Your task to perform on an android device: toggle translation in the chrome app Image 0: 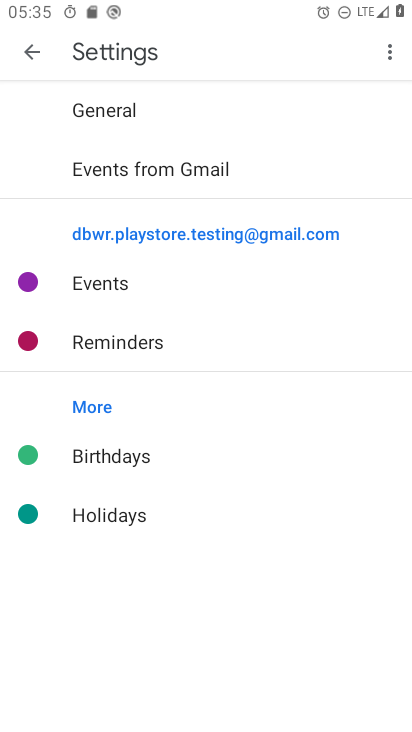
Step 0: press home button
Your task to perform on an android device: toggle translation in the chrome app Image 1: 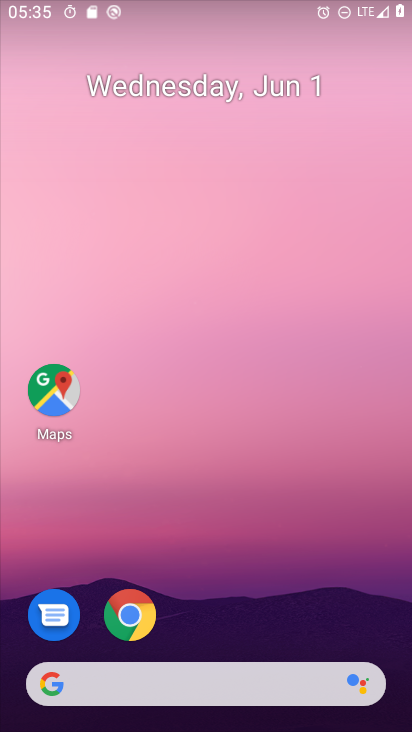
Step 1: drag from (293, 656) to (300, 16)
Your task to perform on an android device: toggle translation in the chrome app Image 2: 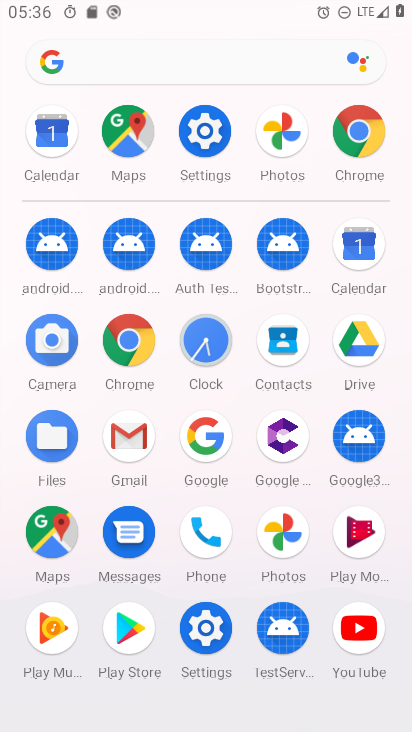
Step 2: click (142, 338)
Your task to perform on an android device: toggle translation in the chrome app Image 3: 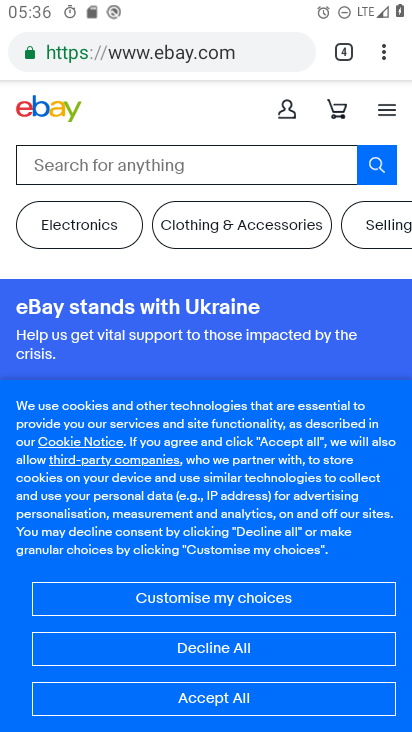
Step 3: drag from (377, 51) to (220, 626)
Your task to perform on an android device: toggle translation in the chrome app Image 4: 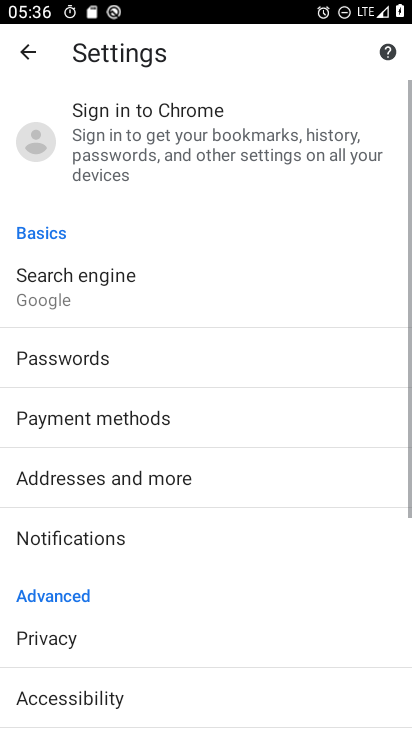
Step 4: drag from (233, 676) to (263, 92)
Your task to perform on an android device: toggle translation in the chrome app Image 5: 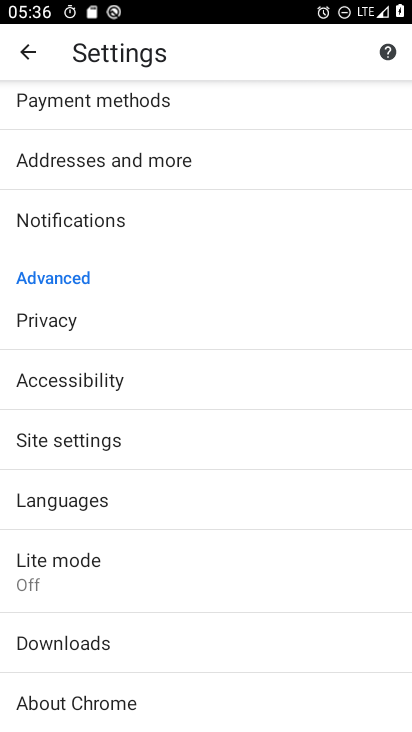
Step 5: click (122, 495)
Your task to perform on an android device: toggle translation in the chrome app Image 6: 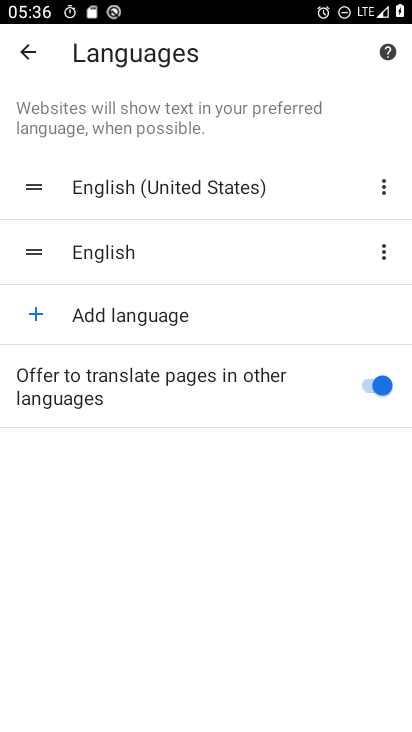
Step 6: click (366, 384)
Your task to perform on an android device: toggle translation in the chrome app Image 7: 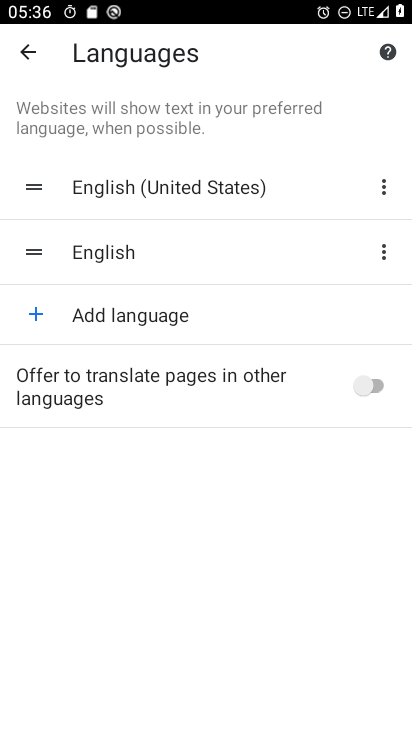
Step 7: task complete